Your task to perform on an android device: Empty the shopping cart on target. Add "razer blade" to the cart on target, then select checkout. Image 0: 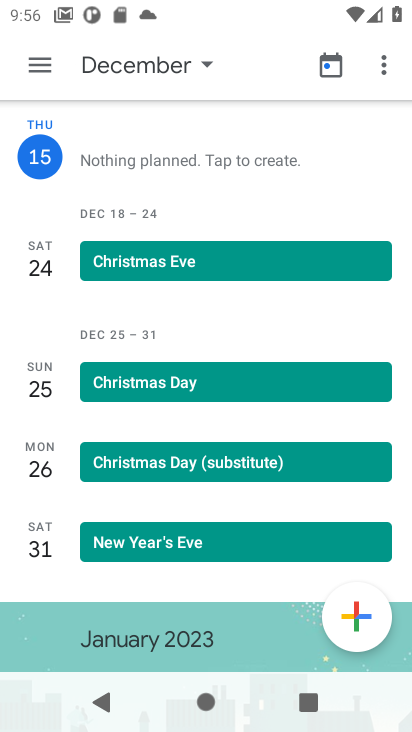
Step 0: press home button
Your task to perform on an android device: Empty the shopping cart on target. Add "razer blade" to the cart on target, then select checkout. Image 1: 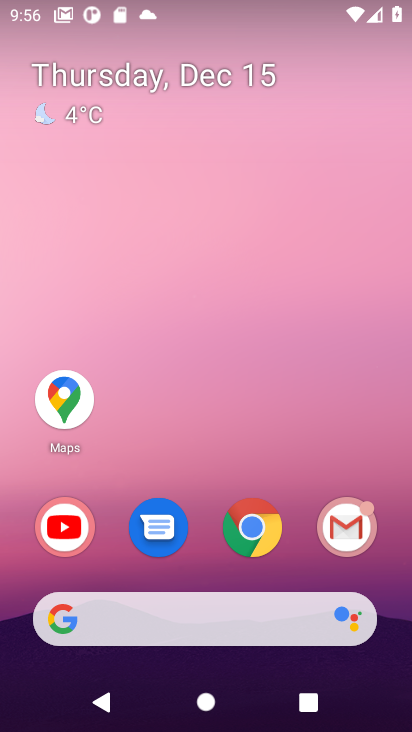
Step 1: click (235, 520)
Your task to perform on an android device: Empty the shopping cart on target. Add "razer blade" to the cart on target, then select checkout. Image 2: 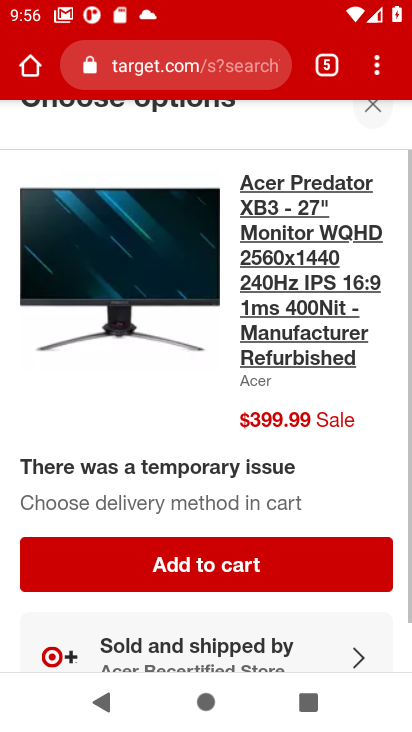
Step 2: click (367, 72)
Your task to perform on an android device: Empty the shopping cart on target. Add "razer blade" to the cart on target, then select checkout. Image 3: 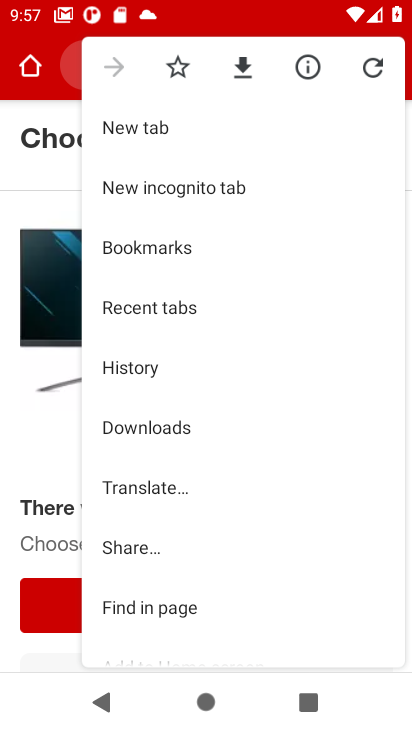
Step 3: click (29, 103)
Your task to perform on an android device: Empty the shopping cart on target. Add "razer blade" to the cart on target, then select checkout. Image 4: 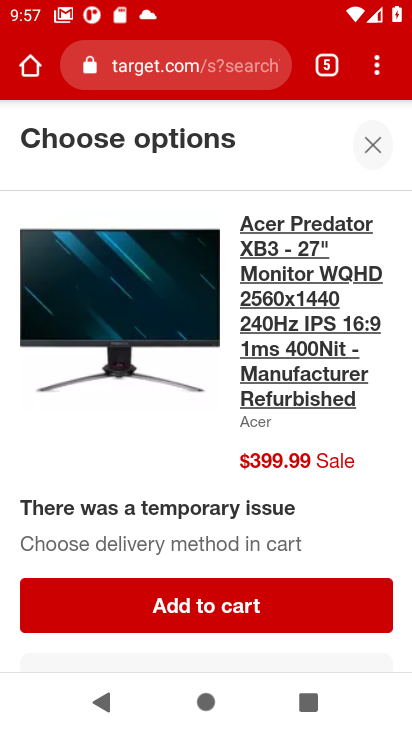
Step 4: click (131, 61)
Your task to perform on an android device: Empty the shopping cart on target. Add "razer blade" to the cart on target, then select checkout. Image 5: 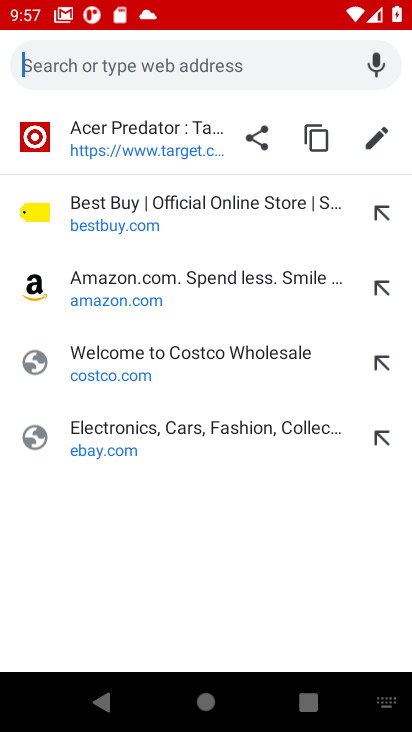
Step 5: click (174, 149)
Your task to perform on an android device: Empty the shopping cart on target. Add "razer blade" to the cart on target, then select checkout. Image 6: 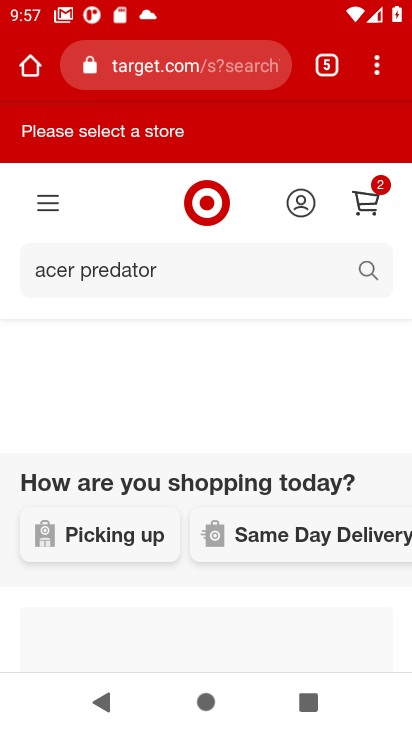
Step 6: click (196, 284)
Your task to perform on an android device: Empty the shopping cart on target. Add "razer blade" to the cart on target, then select checkout. Image 7: 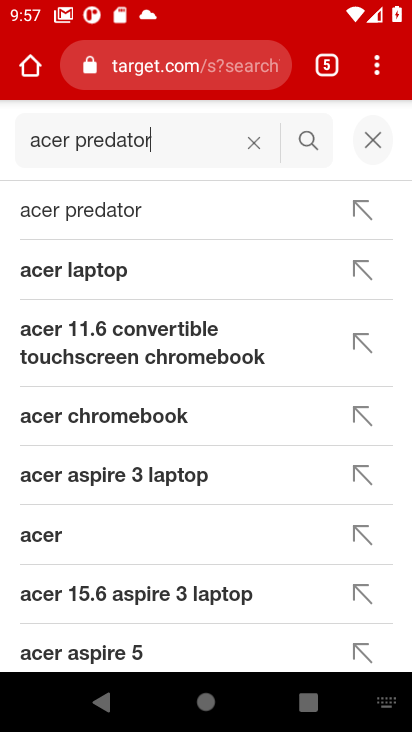
Step 7: click (252, 139)
Your task to perform on an android device: Empty the shopping cart on target. Add "razer blade" to the cart on target, then select checkout. Image 8: 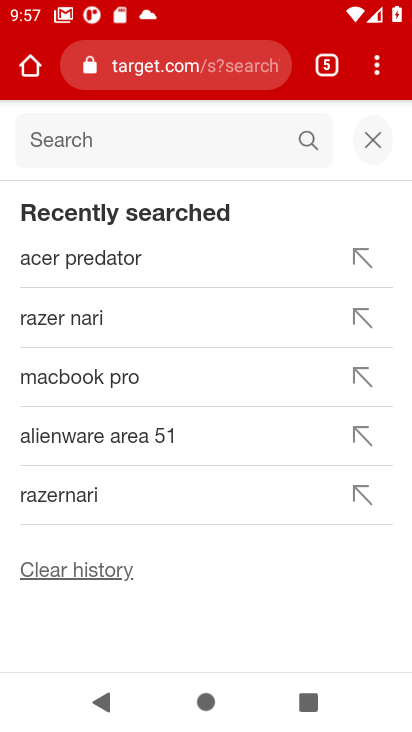
Step 8: type "razer blade"
Your task to perform on an android device: Empty the shopping cart on target. Add "razer blade" to the cart on target, then select checkout. Image 9: 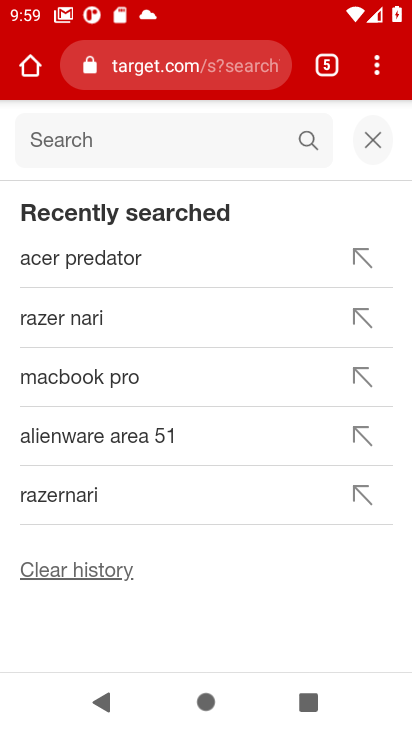
Step 9: task complete